Your task to perform on an android device: clear history in the chrome app Image 0: 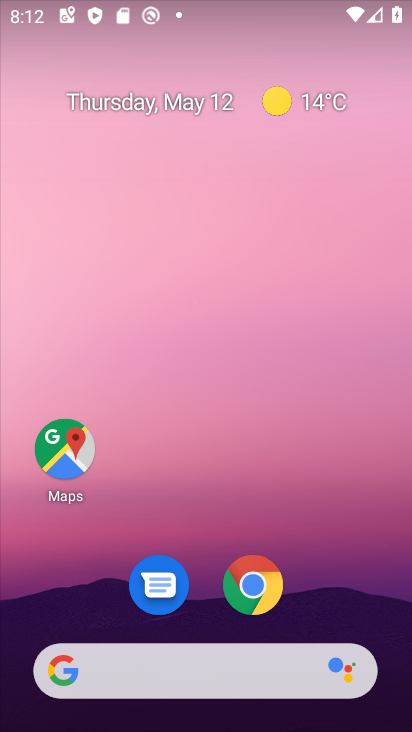
Step 0: click (256, 579)
Your task to perform on an android device: clear history in the chrome app Image 1: 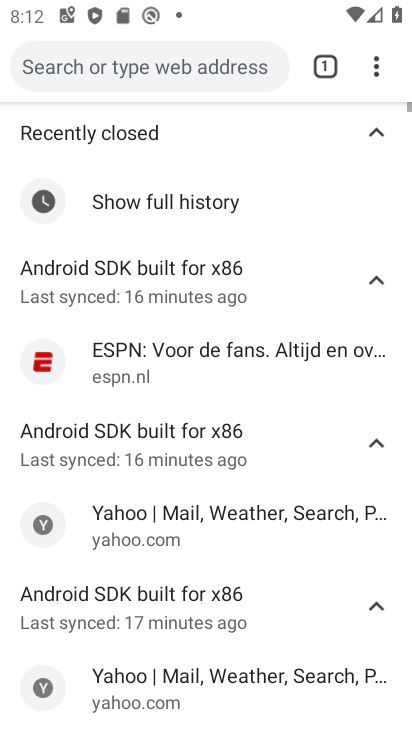
Step 1: click (370, 61)
Your task to perform on an android device: clear history in the chrome app Image 2: 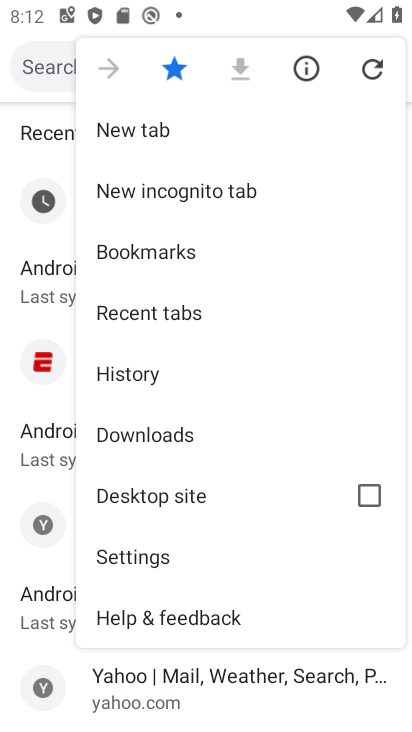
Step 2: click (165, 375)
Your task to perform on an android device: clear history in the chrome app Image 3: 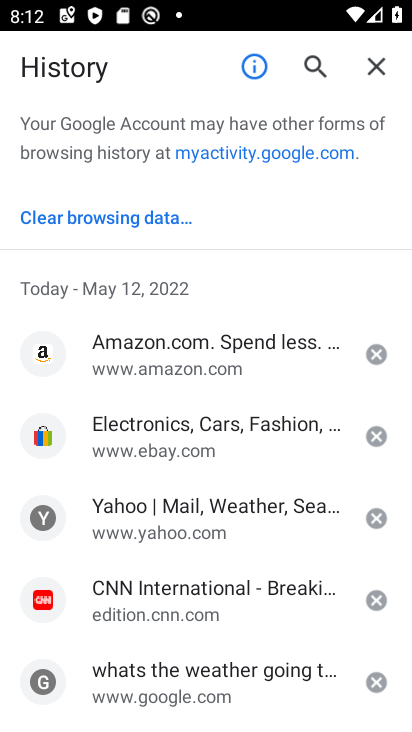
Step 3: click (136, 216)
Your task to perform on an android device: clear history in the chrome app Image 4: 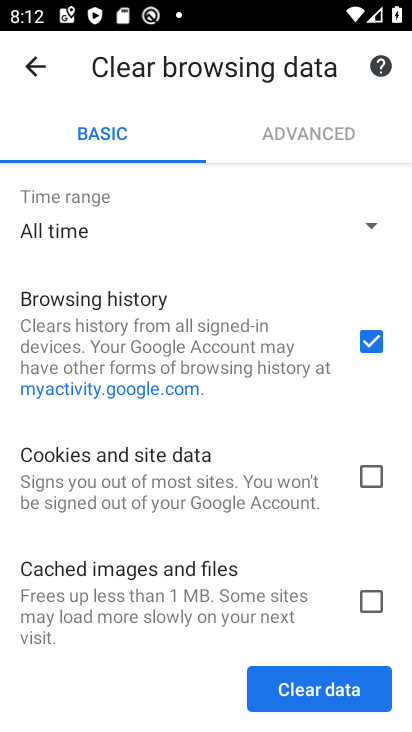
Step 4: click (370, 686)
Your task to perform on an android device: clear history in the chrome app Image 5: 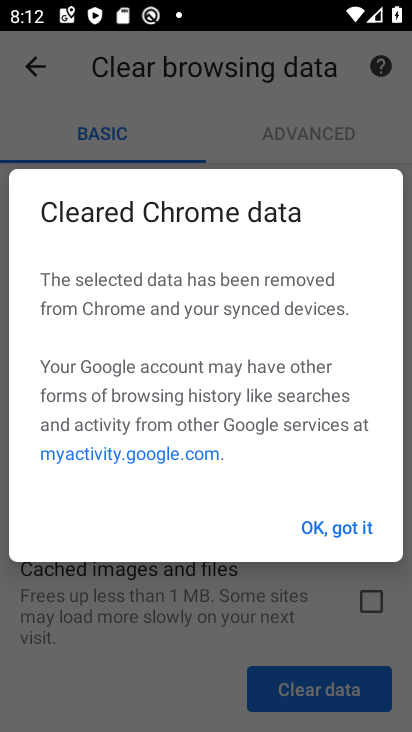
Step 5: click (357, 518)
Your task to perform on an android device: clear history in the chrome app Image 6: 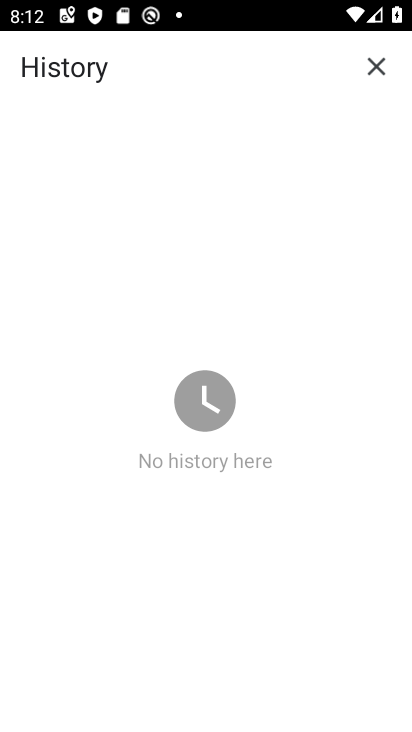
Step 6: task complete